Your task to perform on an android device: Open privacy settings Image 0: 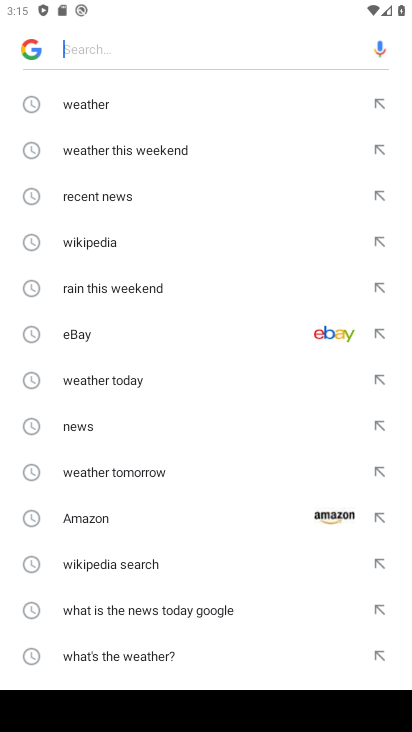
Step 0: press home button
Your task to perform on an android device: Open privacy settings Image 1: 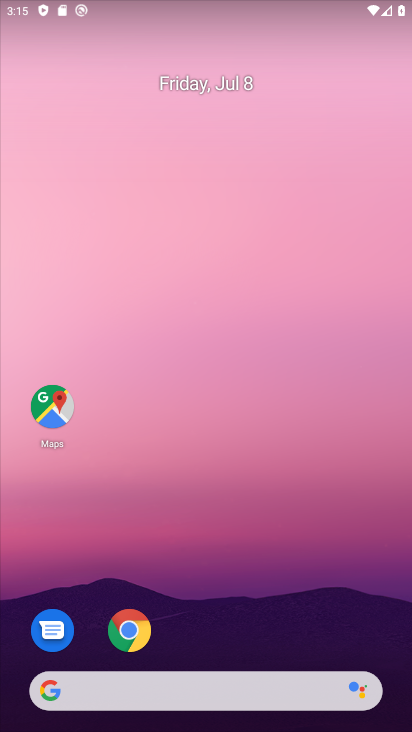
Step 1: drag from (230, 651) to (246, 0)
Your task to perform on an android device: Open privacy settings Image 2: 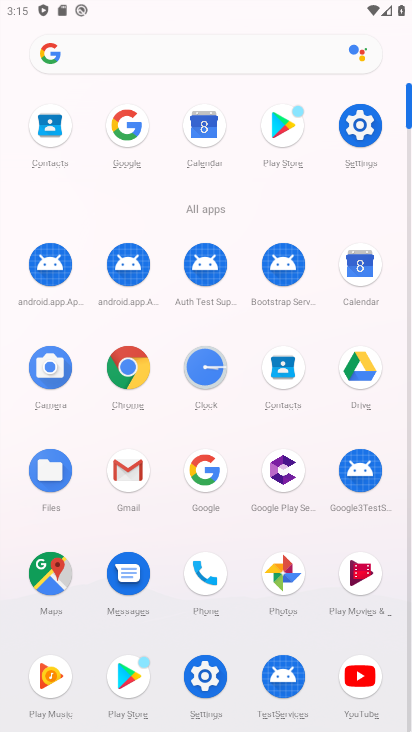
Step 2: click (358, 123)
Your task to perform on an android device: Open privacy settings Image 3: 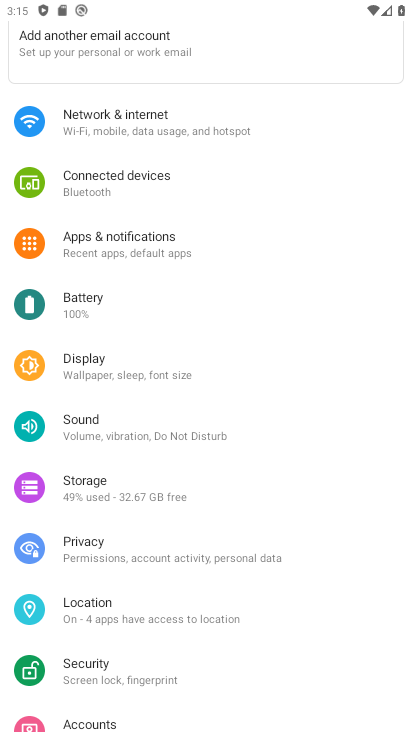
Step 3: click (92, 543)
Your task to perform on an android device: Open privacy settings Image 4: 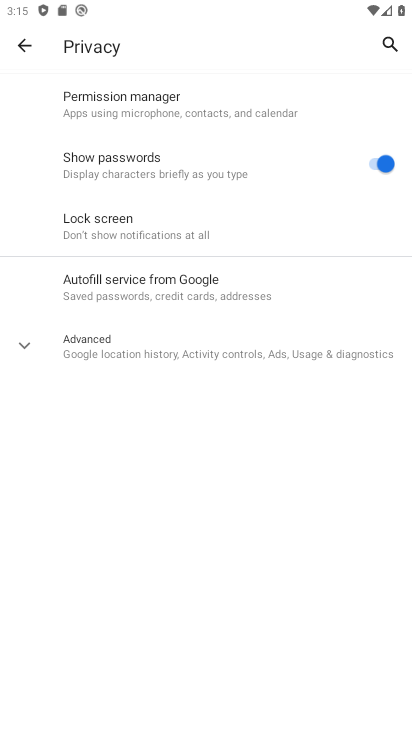
Step 4: task complete